Your task to perform on an android device: Search for pizza restaurants on Maps Image 0: 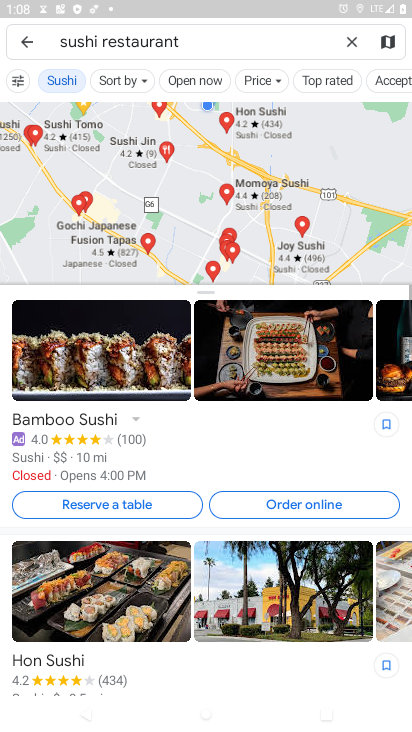
Step 0: press home button
Your task to perform on an android device: Search for pizza restaurants on Maps Image 1: 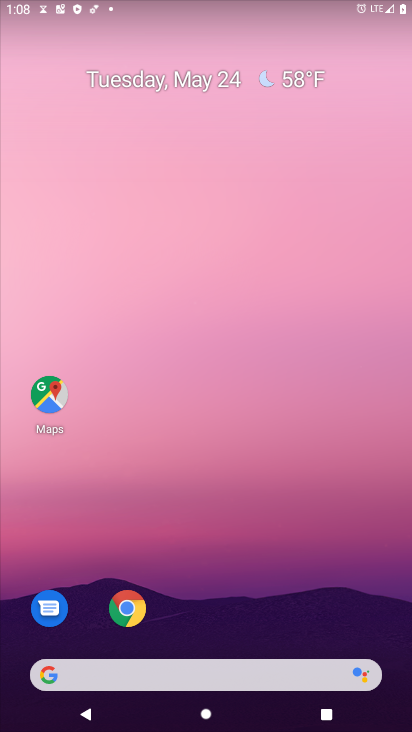
Step 1: drag from (236, 696) to (286, 268)
Your task to perform on an android device: Search for pizza restaurants on Maps Image 2: 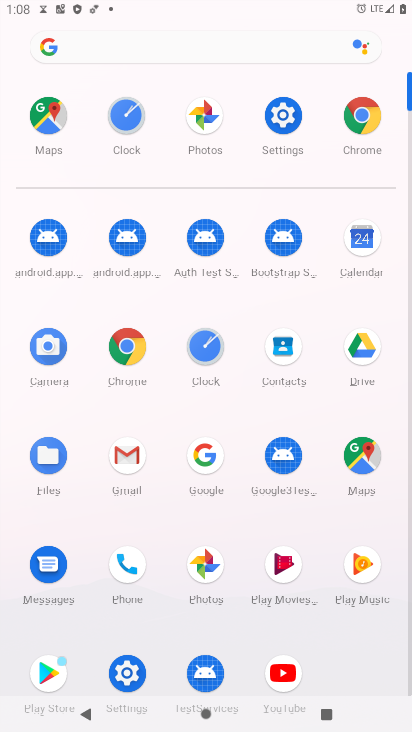
Step 2: click (381, 454)
Your task to perform on an android device: Search for pizza restaurants on Maps Image 3: 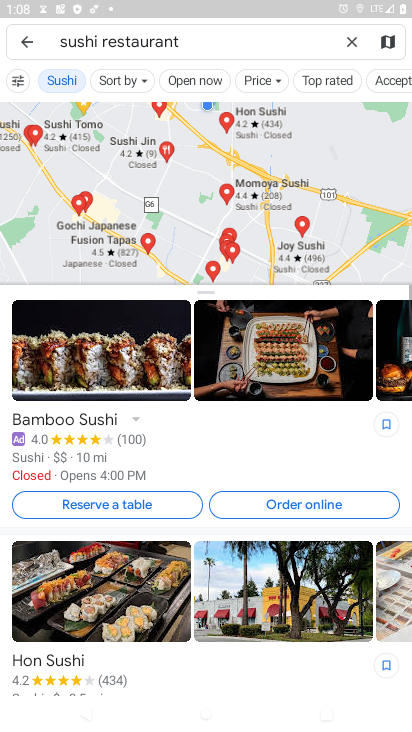
Step 3: click (353, 39)
Your task to perform on an android device: Search for pizza restaurants on Maps Image 4: 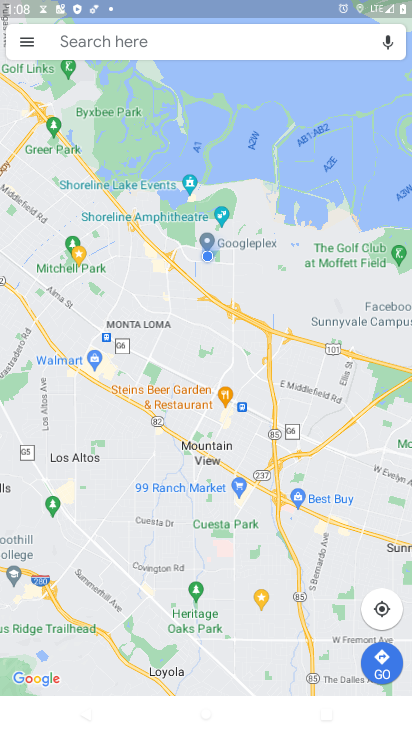
Step 4: click (334, 33)
Your task to perform on an android device: Search for pizza restaurants on Maps Image 5: 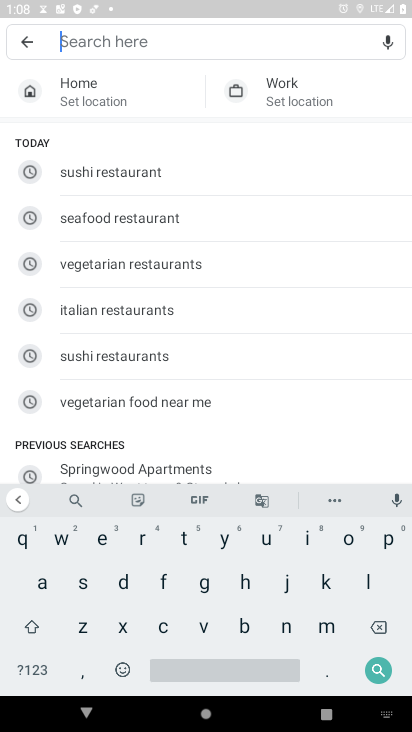
Step 5: click (389, 535)
Your task to perform on an android device: Search for pizza restaurants on Maps Image 6: 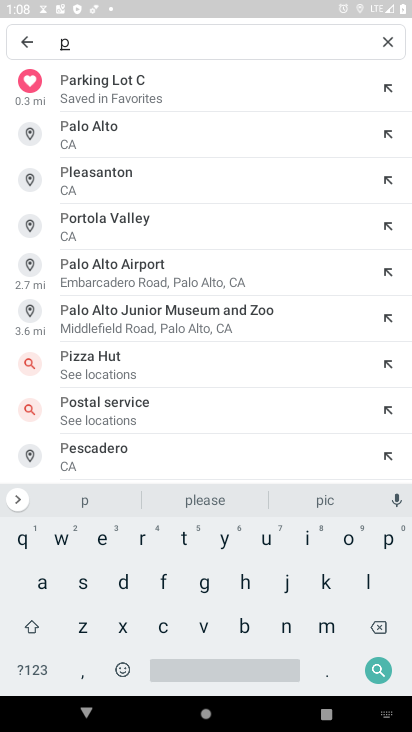
Step 6: click (303, 536)
Your task to perform on an android device: Search for pizza restaurants on Maps Image 7: 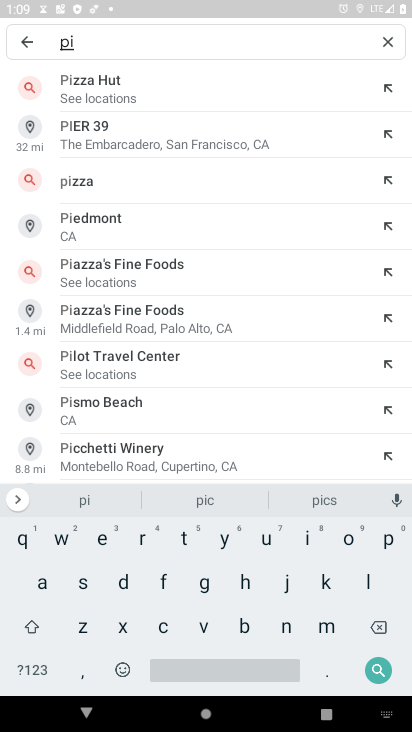
Step 7: click (84, 626)
Your task to perform on an android device: Search for pizza restaurants on Maps Image 8: 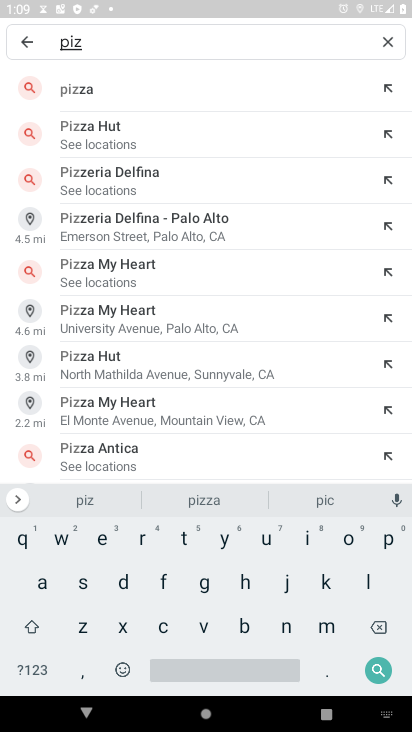
Step 8: click (82, 619)
Your task to perform on an android device: Search for pizza restaurants on Maps Image 9: 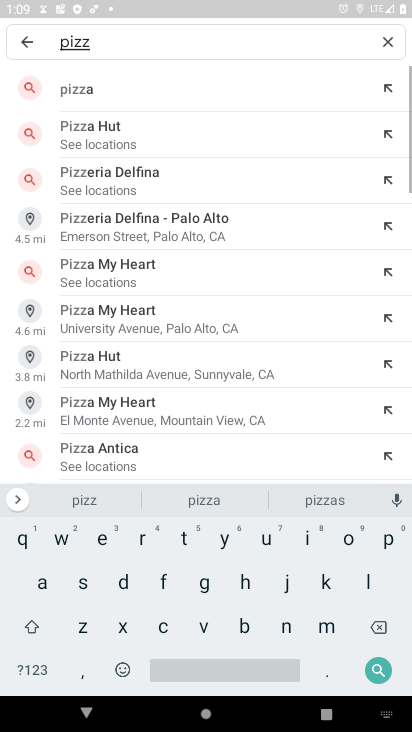
Step 9: click (40, 581)
Your task to perform on an android device: Search for pizza restaurants on Maps Image 10: 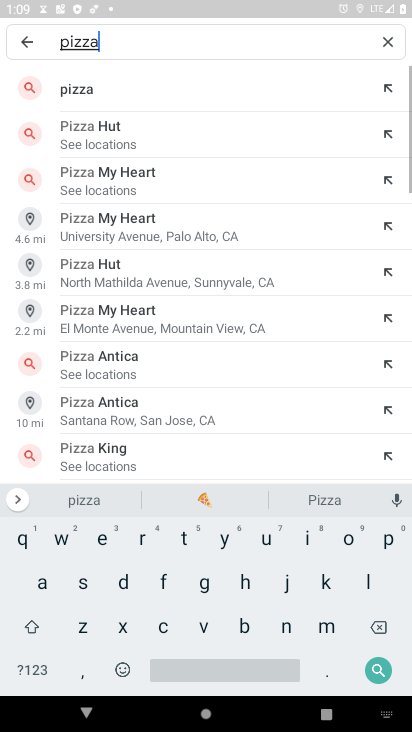
Step 10: click (204, 670)
Your task to perform on an android device: Search for pizza restaurants on Maps Image 11: 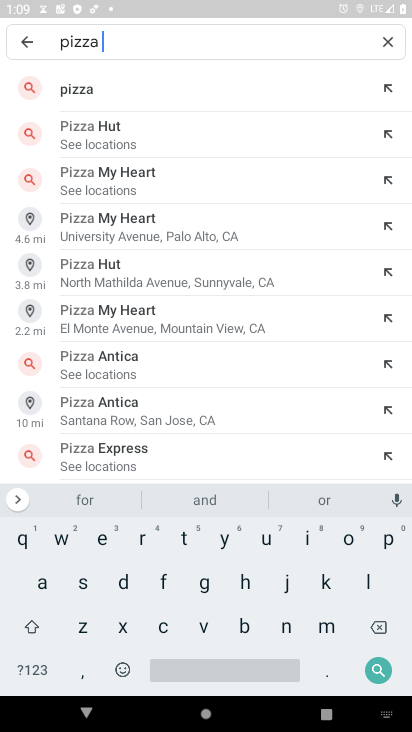
Step 11: click (141, 540)
Your task to perform on an android device: Search for pizza restaurants on Maps Image 12: 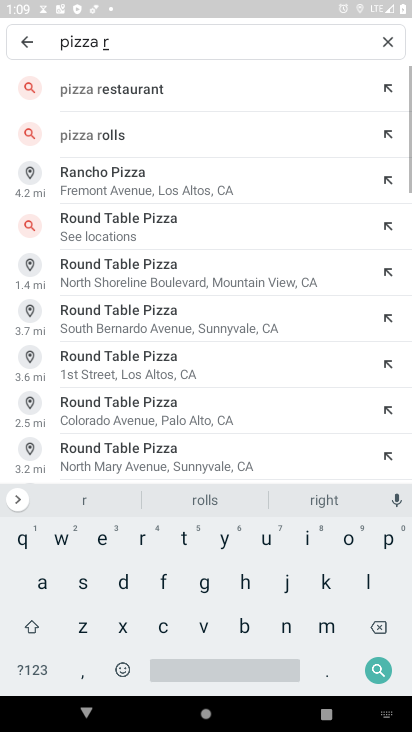
Step 12: click (160, 92)
Your task to perform on an android device: Search for pizza restaurants on Maps Image 13: 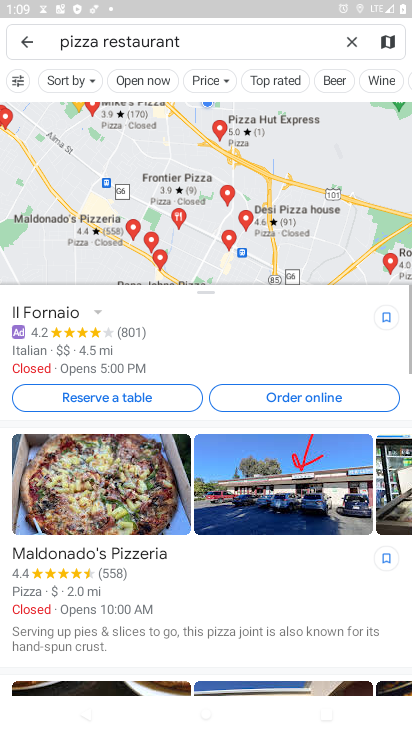
Step 13: click (199, 193)
Your task to perform on an android device: Search for pizza restaurants on Maps Image 14: 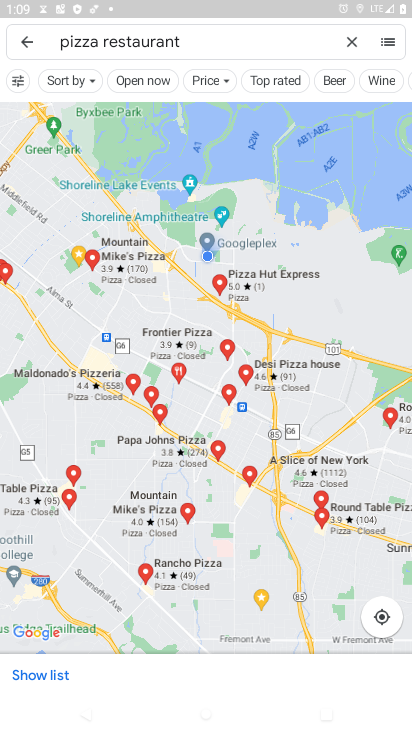
Step 14: task complete